Your task to perform on an android device: Is it going to rain today? Image 0: 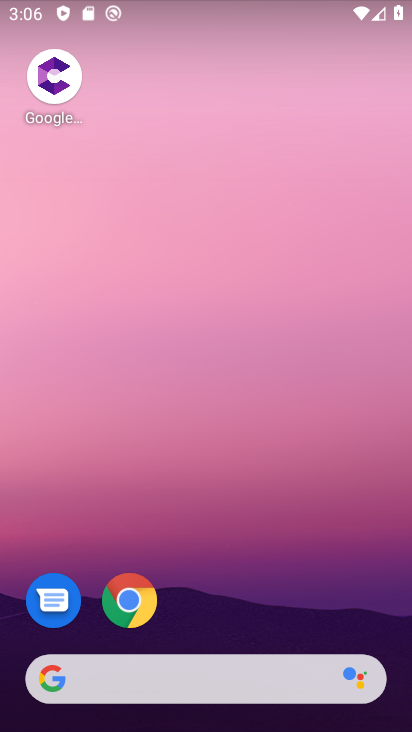
Step 0: drag from (202, 504) to (193, 27)
Your task to perform on an android device: Is it going to rain today? Image 1: 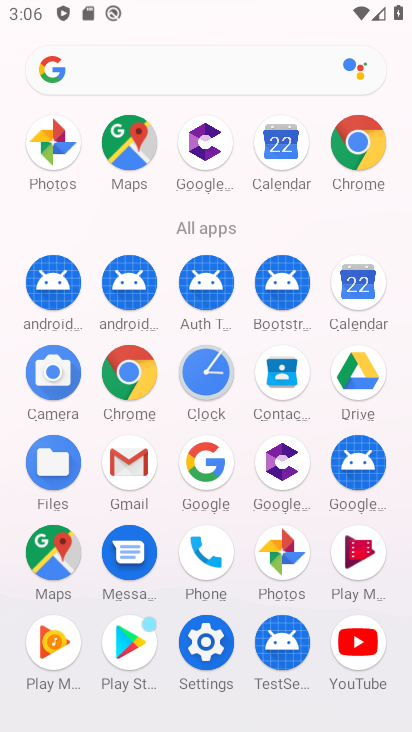
Step 1: press home button
Your task to perform on an android device: Is it going to rain today? Image 2: 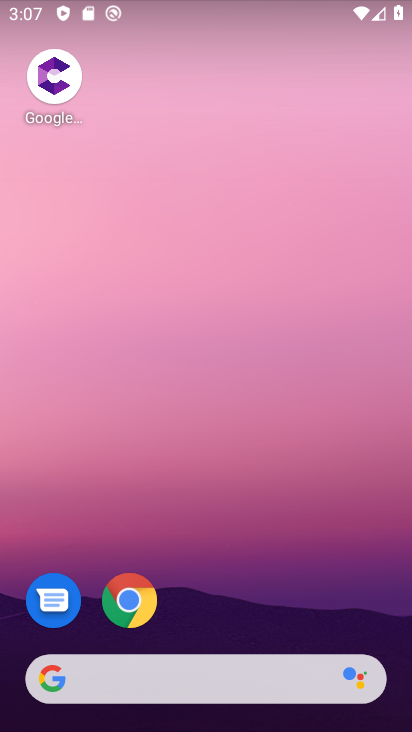
Step 2: drag from (265, 337) to (406, 561)
Your task to perform on an android device: Is it going to rain today? Image 3: 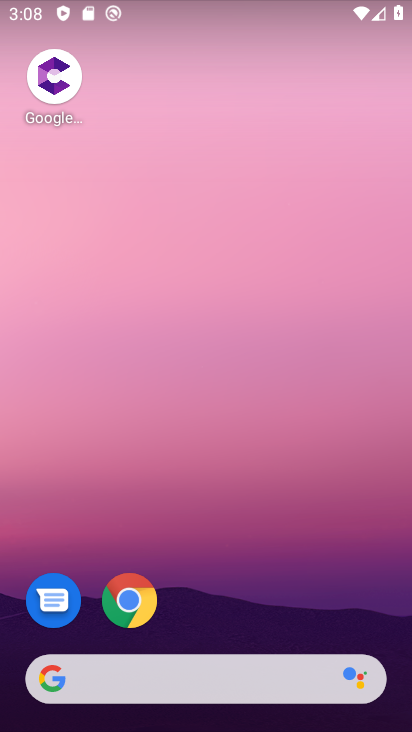
Step 3: drag from (119, 264) to (303, 300)
Your task to perform on an android device: Is it going to rain today? Image 4: 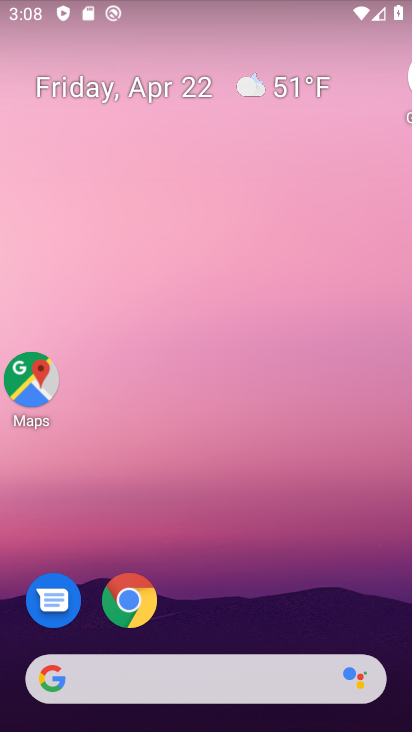
Step 4: click (156, 335)
Your task to perform on an android device: Is it going to rain today? Image 5: 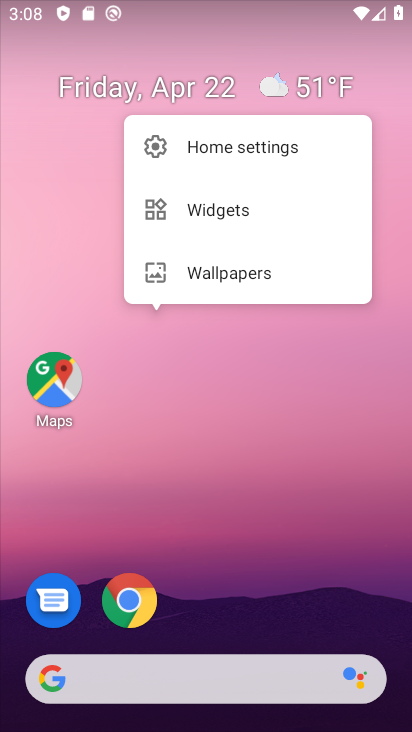
Step 5: click (169, 401)
Your task to perform on an android device: Is it going to rain today? Image 6: 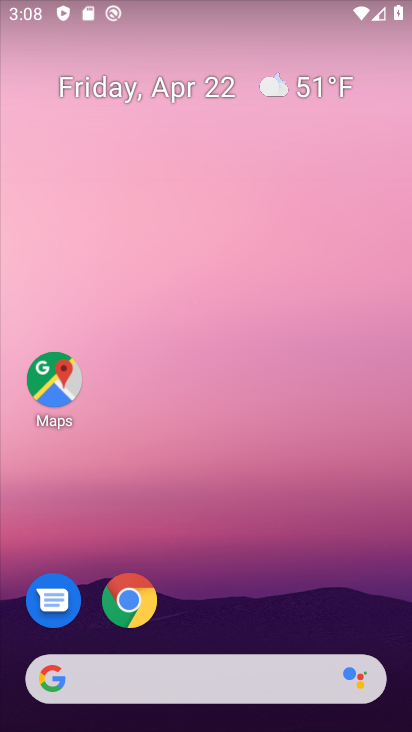
Step 6: click (169, 395)
Your task to perform on an android device: Is it going to rain today? Image 7: 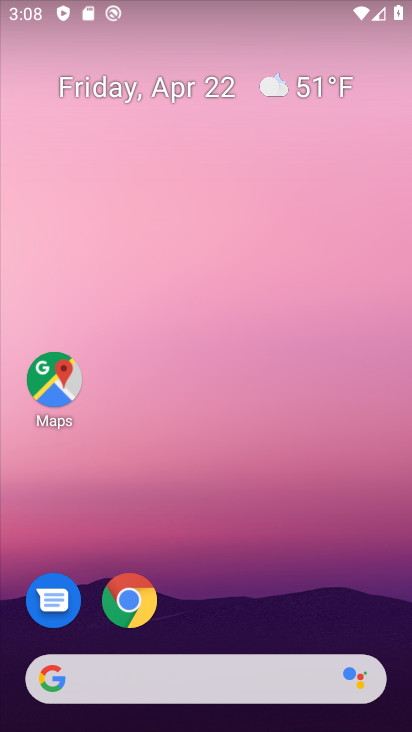
Step 7: click (163, 392)
Your task to perform on an android device: Is it going to rain today? Image 8: 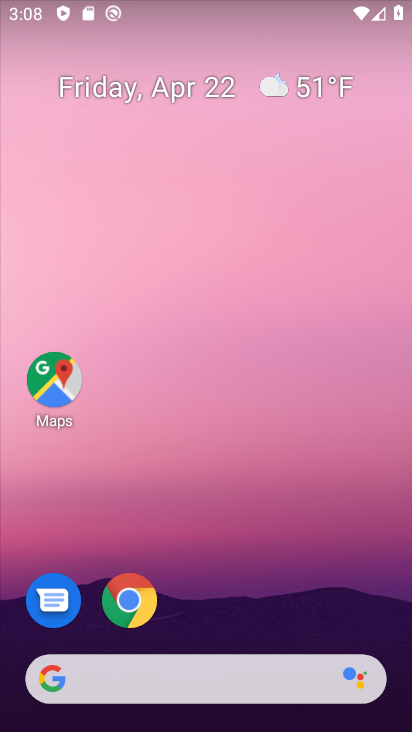
Step 8: drag from (9, 255) to (396, 300)
Your task to perform on an android device: Is it going to rain today? Image 9: 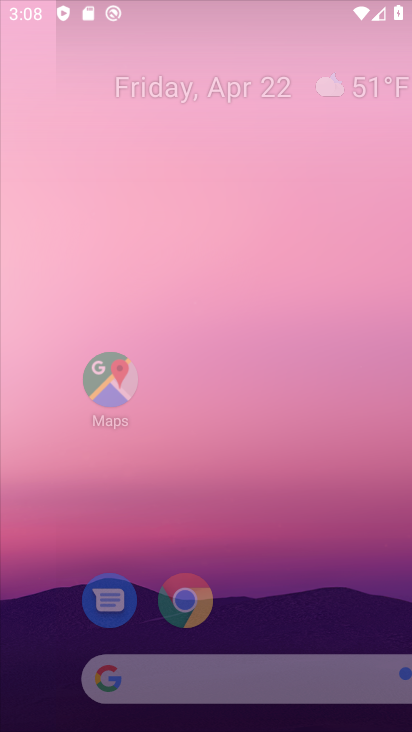
Step 9: drag from (16, 229) to (265, 268)
Your task to perform on an android device: Is it going to rain today? Image 10: 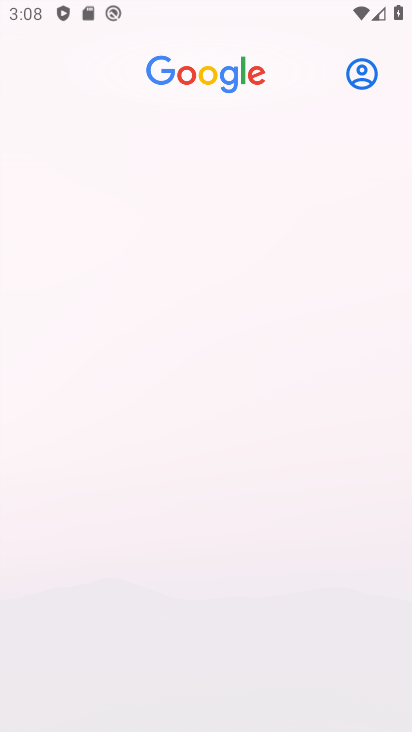
Step 10: drag from (290, 259) to (374, 313)
Your task to perform on an android device: Is it going to rain today? Image 11: 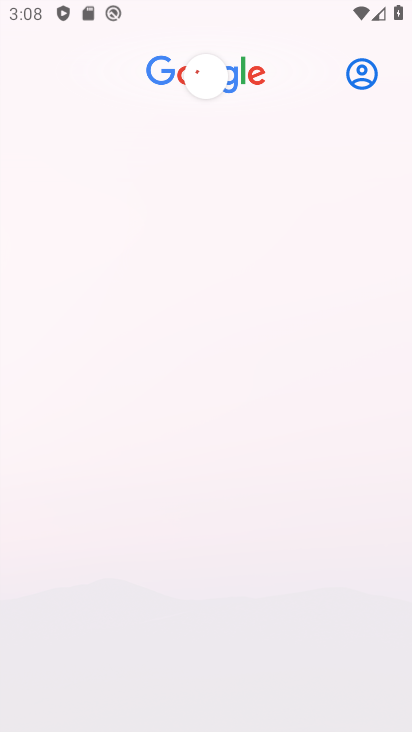
Step 11: drag from (383, 323) to (407, 237)
Your task to perform on an android device: Is it going to rain today? Image 12: 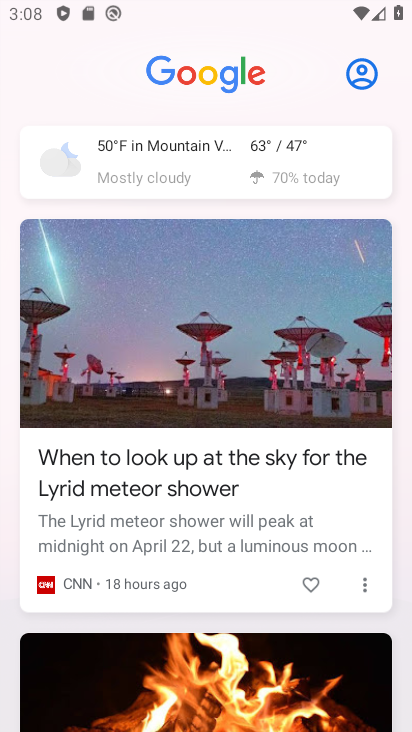
Step 12: click (217, 147)
Your task to perform on an android device: Is it going to rain today? Image 13: 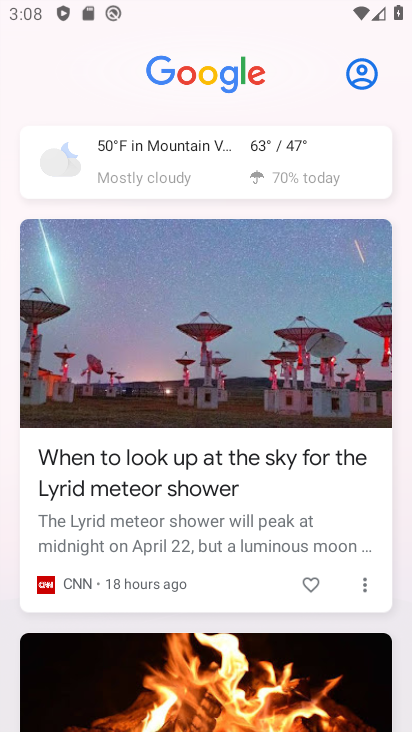
Step 13: click (219, 151)
Your task to perform on an android device: Is it going to rain today? Image 14: 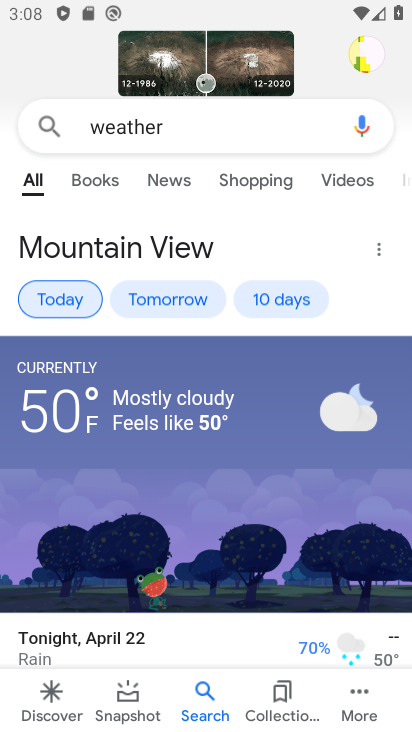
Step 14: task complete